Your task to perform on an android device: Open Google Chrome and open the bookmarks view Image 0: 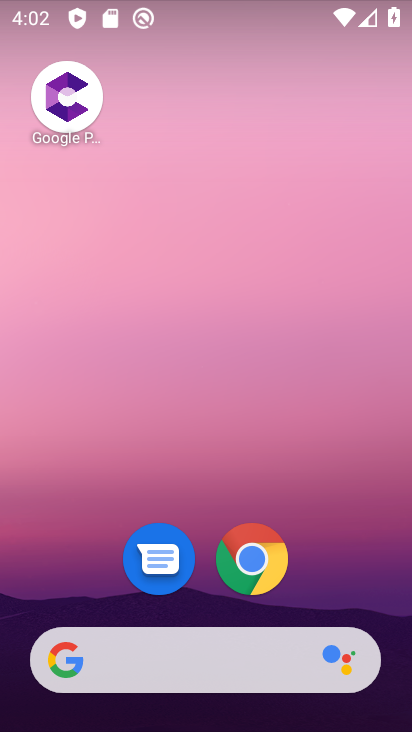
Step 0: click (247, 557)
Your task to perform on an android device: Open Google Chrome and open the bookmarks view Image 1: 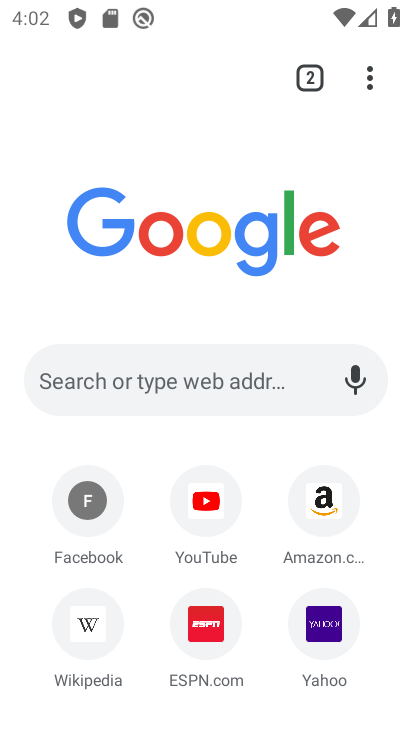
Step 1: click (359, 80)
Your task to perform on an android device: Open Google Chrome and open the bookmarks view Image 2: 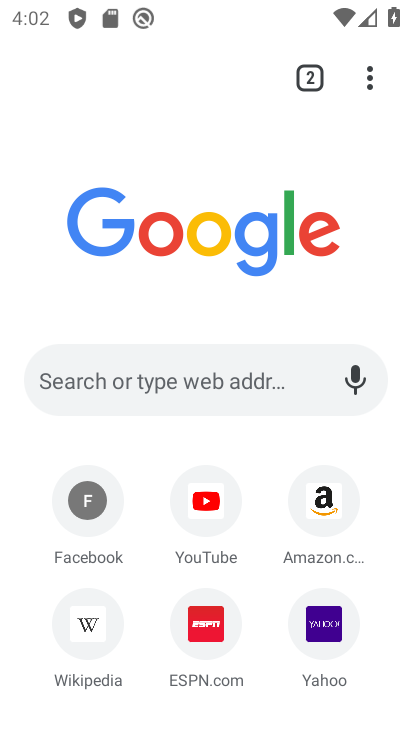
Step 2: click (359, 80)
Your task to perform on an android device: Open Google Chrome and open the bookmarks view Image 3: 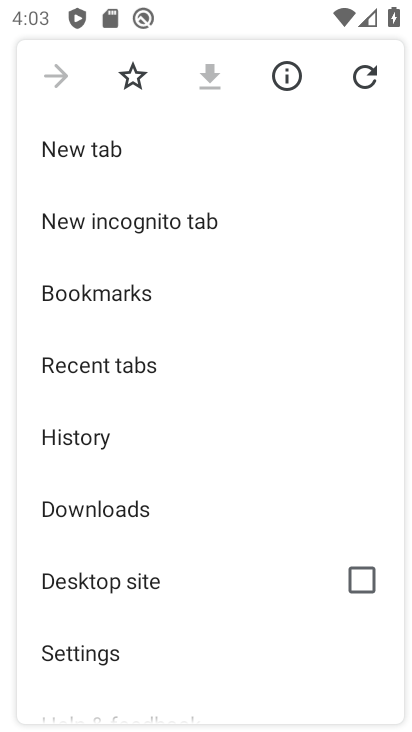
Step 3: click (75, 298)
Your task to perform on an android device: Open Google Chrome and open the bookmarks view Image 4: 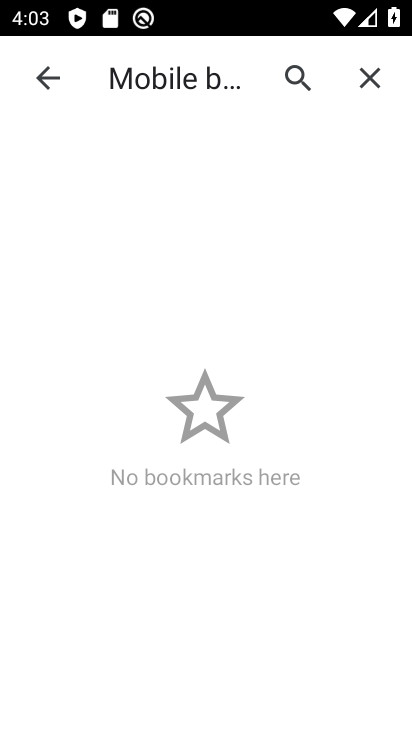
Step 4: task complete